Your task to perform on an android device: Is it going to rain tomorrow? Image 0: 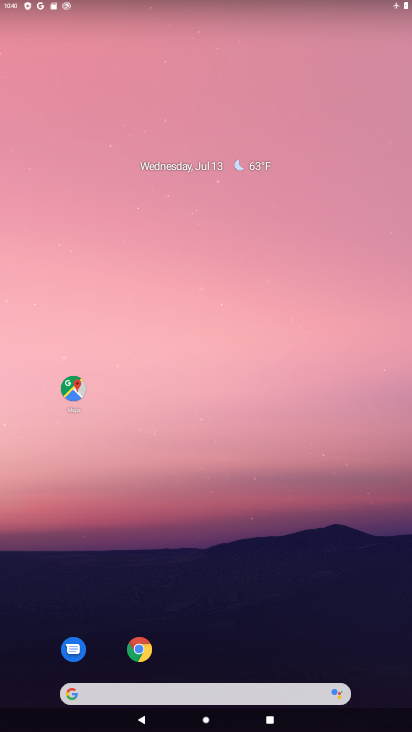
Step 0: drag from (243, 633) to (223, 206)
Your task to perform on an android device: Is it going to rain tomorrow? Image 1: 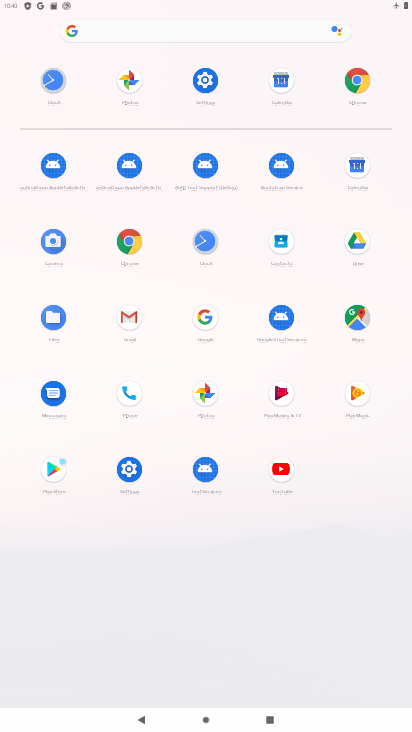
Step 1: click (355, 84)
Your task to perform on an android device: Is it going to rain tomorrow? Image 2: 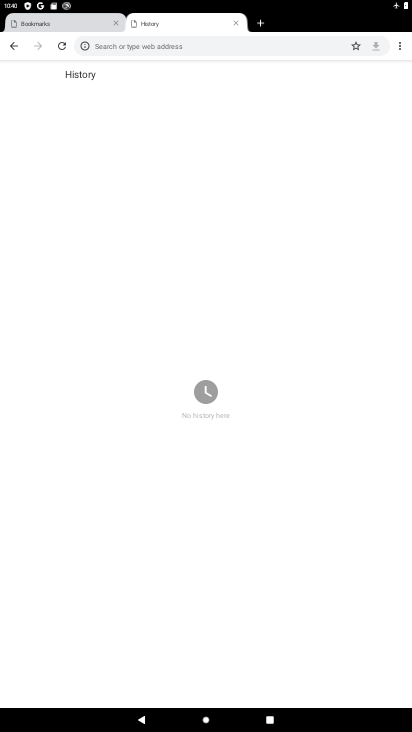
Step 2: click (262, 22)
Your task to perform on an android device: Is it going to rain tomorrow? Image 3: 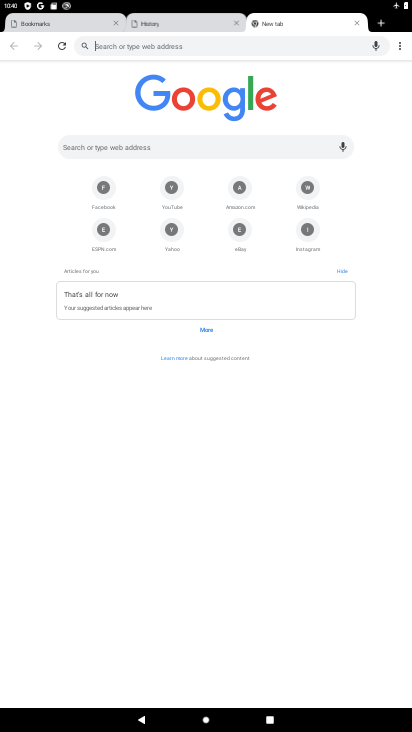
Step 3: click (139, 140)
Your task to perform on an android device: Is it going to rain tomorrow? Image 4: 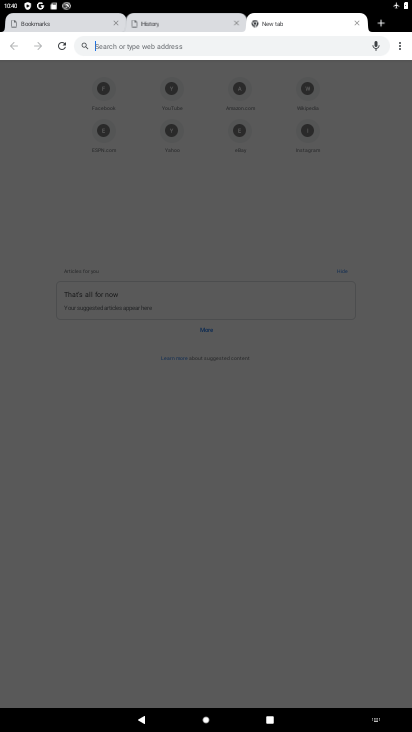
Step 4: type "Is it going to rain tomorrow "
Your task to perform on an android device: Is it going to rain tomorrow? Image 5: 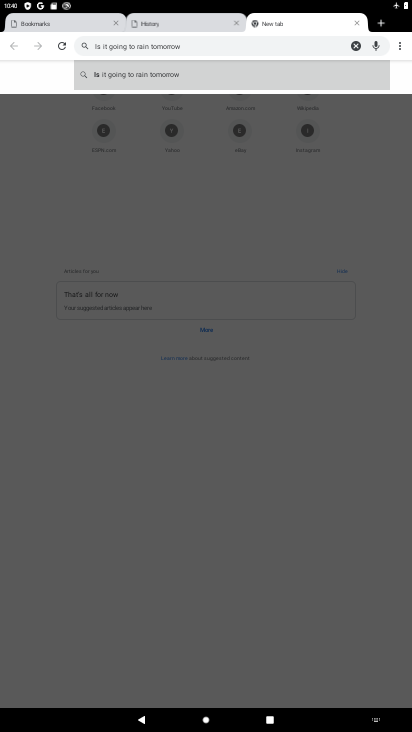
Step 5: click (186, 78)
Your task to perform on an android device: Is it going to rain tomorrow? Image 6: 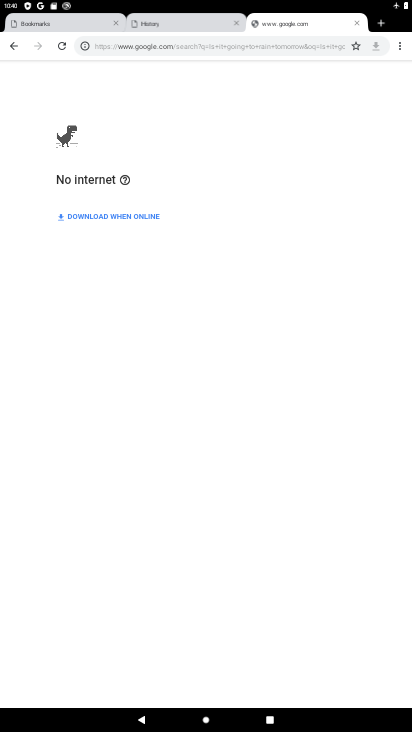
Step 6: task complete